Your task to perform on an android device: change the clock display to show seconds Image 0: 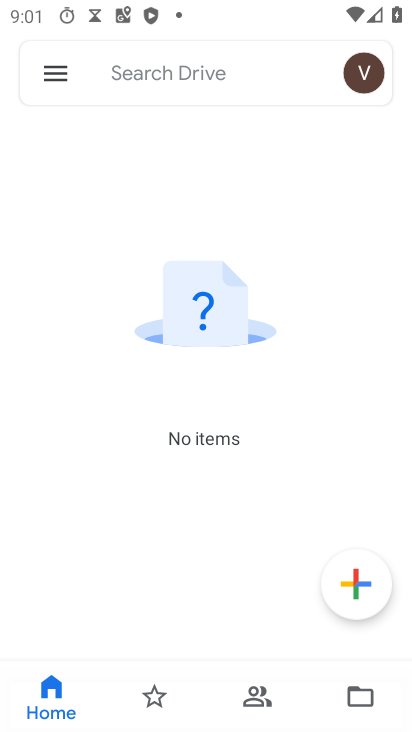
Step 0: press home button
Your task to perform on an android device: change the clock display to show seconds Image 1: 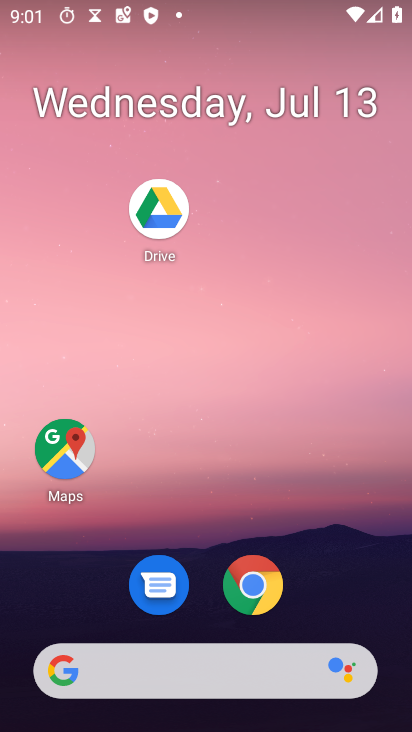
Step 1: drag from (171, 655) to (325, 54)
Your task to perform on an android device: change the clock display to show seconds Image 2: 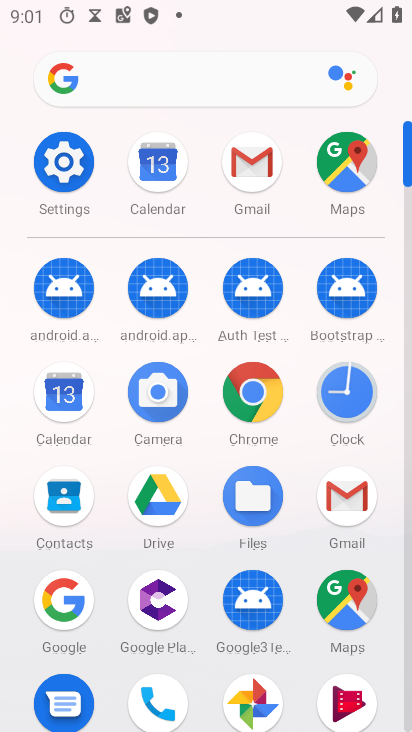
Step 2: click (348, 392)
Your task to perform on an android device: change the clock display to show seconds Image 3: 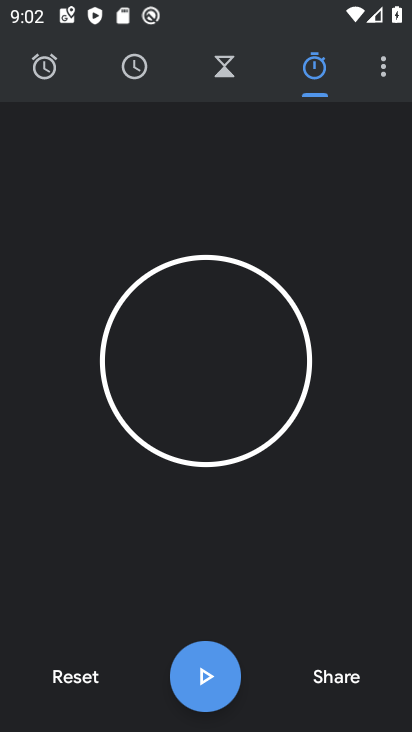
Step 3: click (384, 63)
Your task to perform on an android device: change the clock display to show seconds Image 4: 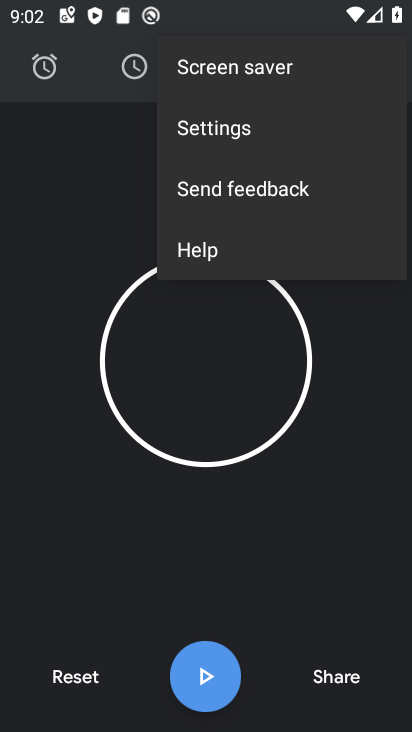
Step 4: click (234, 139)
Your task to perform on an android device: change the clock display to show seconds Image 5: 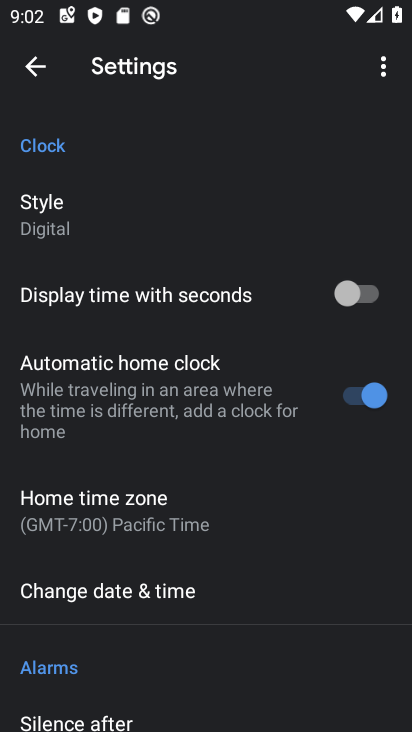
Step 5: click (361, 299)
Your task to perform on an android device: change the clock display to show seconds Image 6: 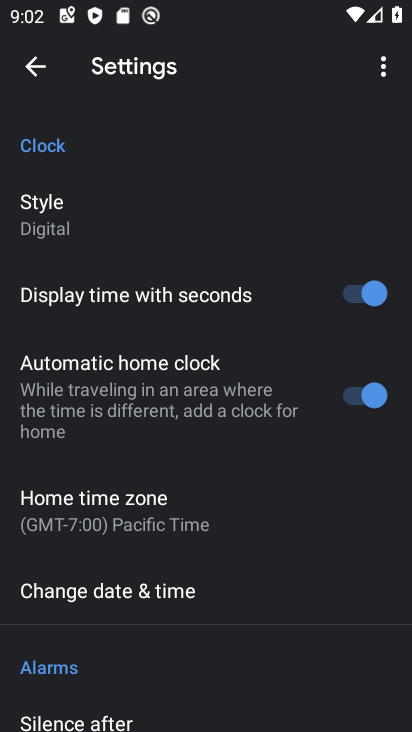
Step 6: task complete